Your task to perform on an android device: Open Wikipedia Image 0: 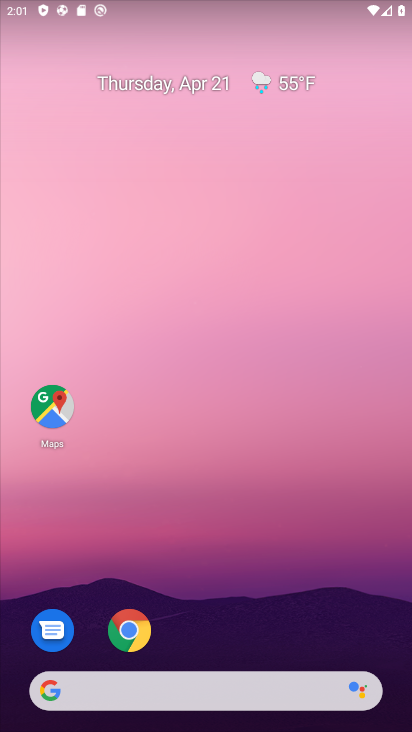
Step 0: click (142, 638)
Your task to perform on an android device: Open Wikipedia Image 1: 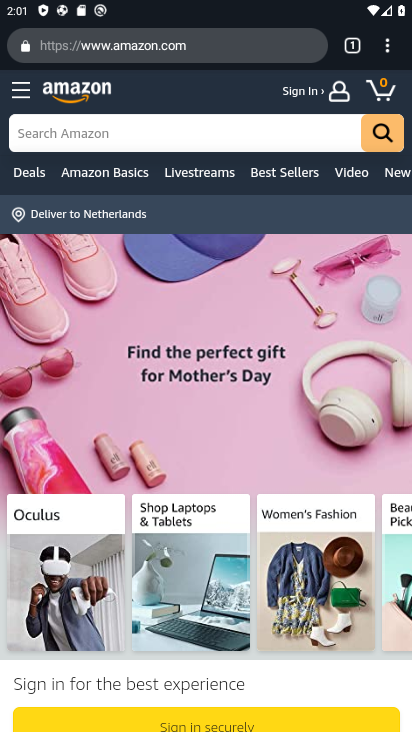
Step 1: click (151, 52)
Your task to perform on an android device: Open Wikipedia Image 2: 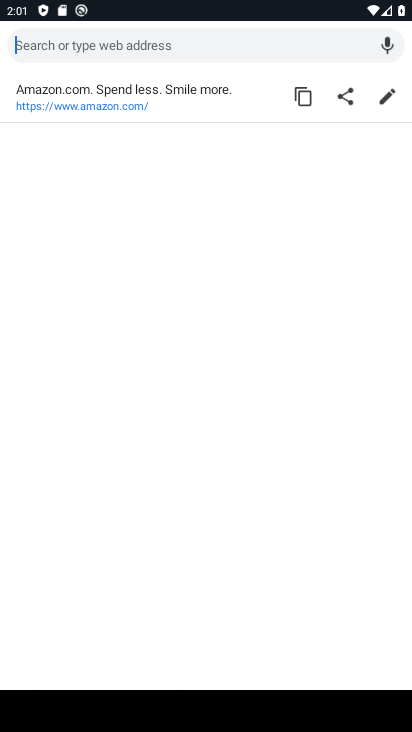
Step 2: type "wikipedia"
Your task to perform on an android device: Open Wikipedia Image 3: 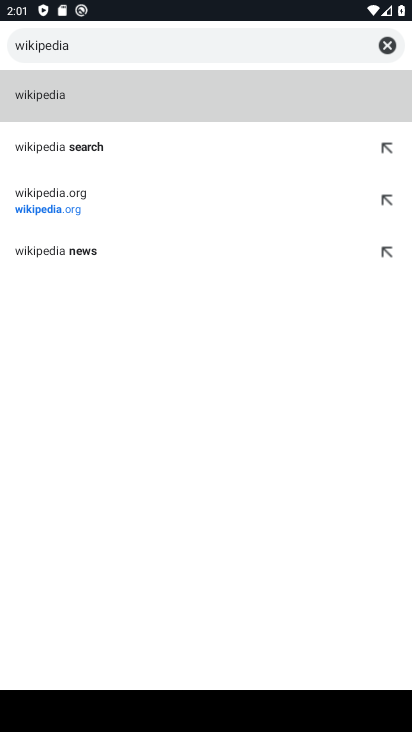
Step 3: click (51, 102)
Your task to perform on an android device: Open Wikipedia Image 4: 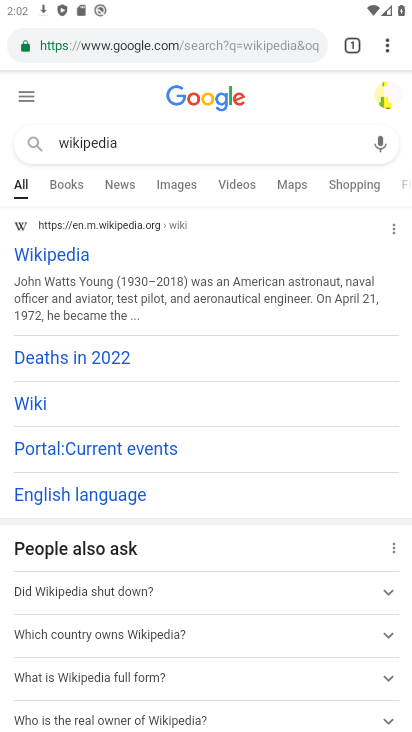
Step 4: click (67, 256)
Your task to perform on an android device: Open Wikipedia Image 5: 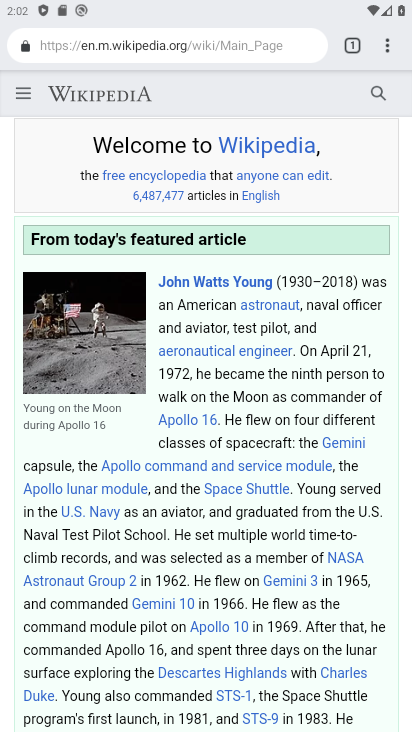
Step 5: task complete